Your task to perform on an android device: Is it going to rain tomorrow? Image 0: 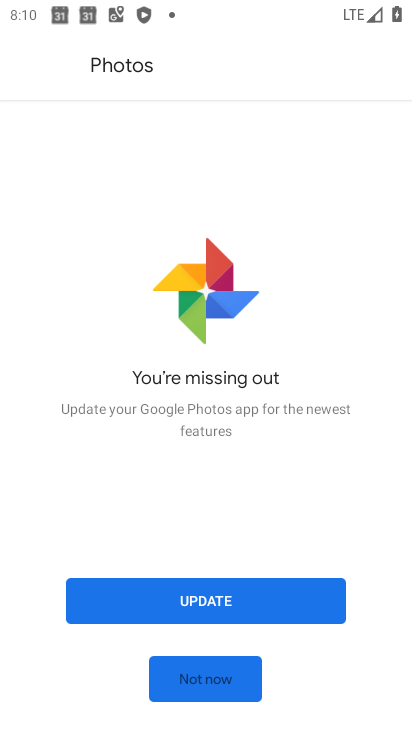
Step 0: press home button
Your task to perform on an android device: Is it going to rain tomorrow? Image 1: 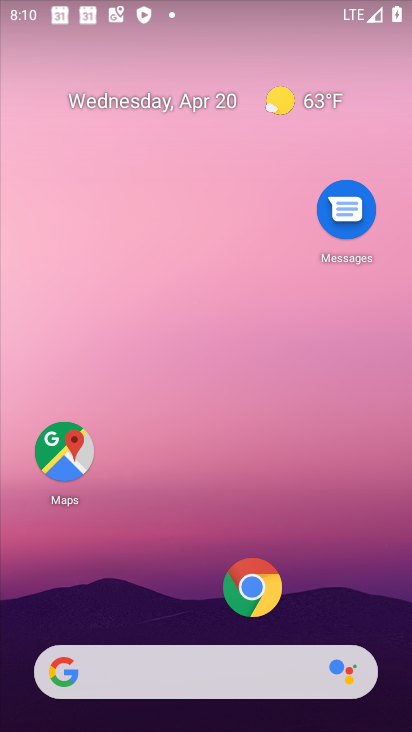
Step 1: click (302, 99)
Your task to perform on an android device: Is it going to rain tomorrow? Image 2: 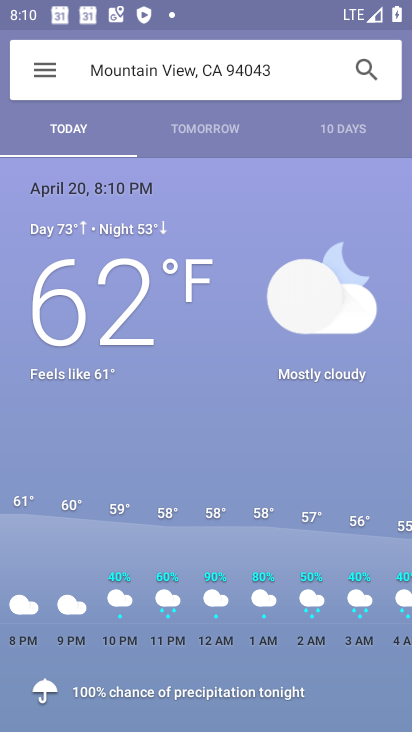
Step 2: click (196, 129)
Your task to perform on an android device: Is it going to rain tomorrow? Image 3: 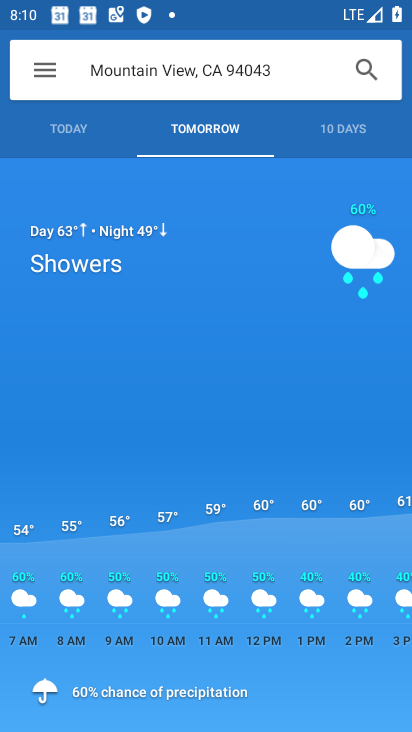
Step 3: task complete